Your task to perform on an android device: Open the web browser Image 0: 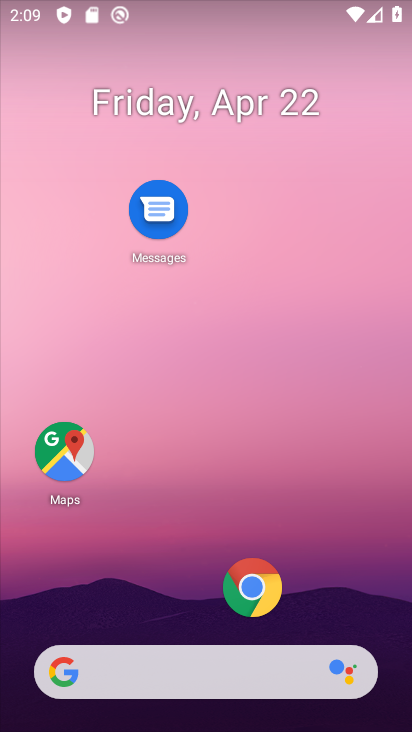
Step 0: click (262, 597)
Your task to perform on an android device: Open the web browser Image 1: 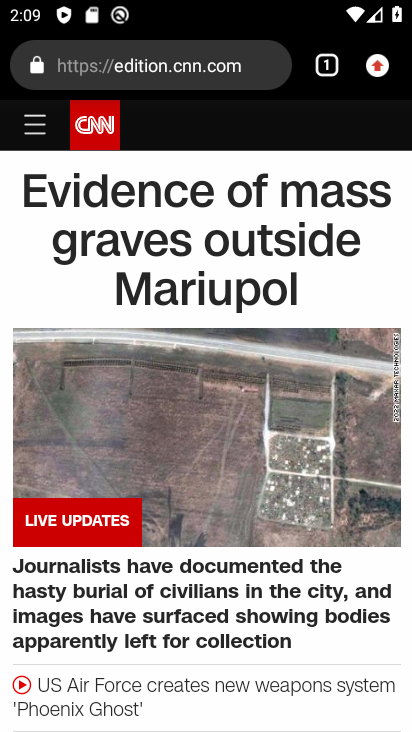
Step 1: task complete